Your task to perform on an android device: Go to location settings Image 0: 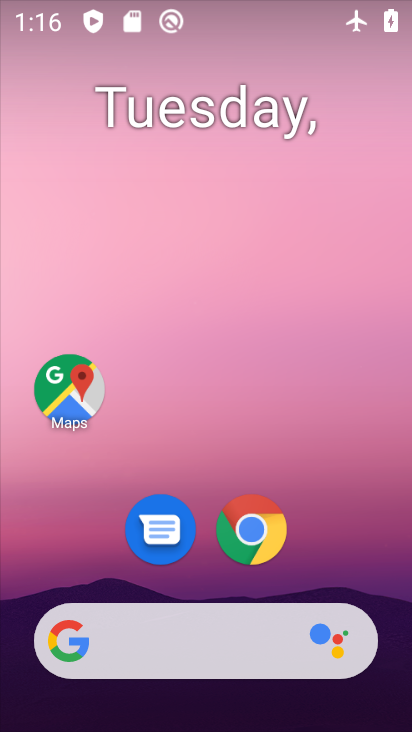
Step 0: drag from (371, 494) to (320, 172)
Your task to perform on an android device: Go to location settings Image 1: 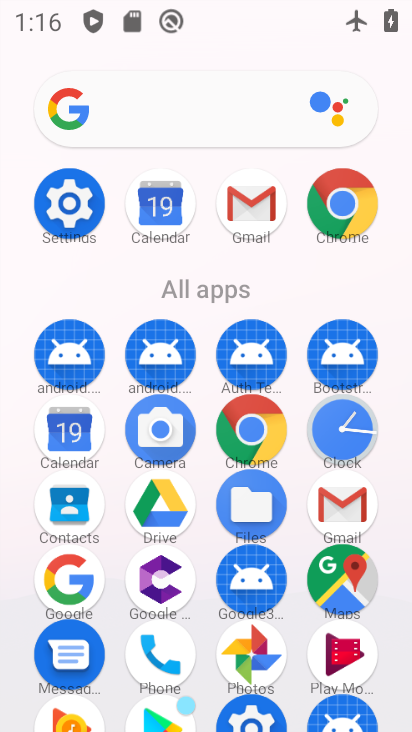
Step 1: click (73, 211)
Your task to perform on an android device: Go to location settings Image 2: 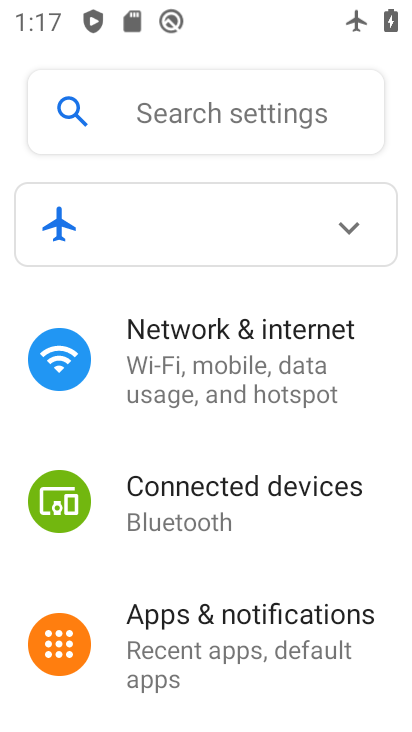
Step 2: drag from (137, 570) to (152, 166)
Your task to perform on an android device: Go to location settings Image 3: 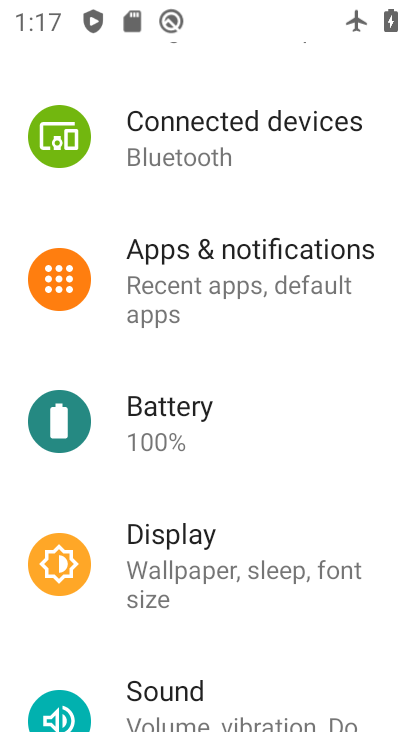
Step 3: drag from (302, 469) to (231, 145)
Your task to perform on an android device: Go to location settings Image 4: 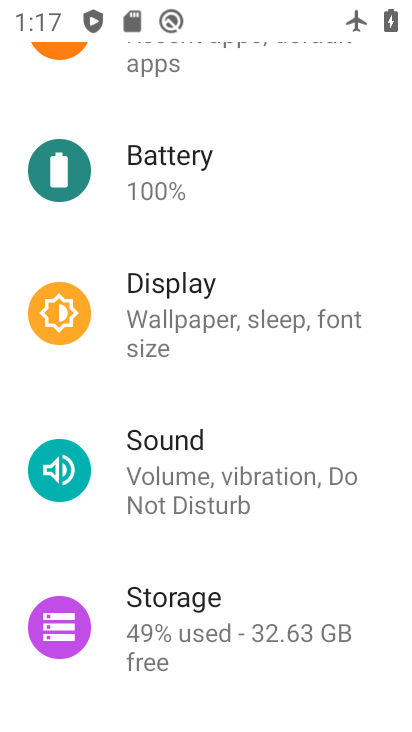
Step 4: drag from (278, 558) to (286, 126)
Your task to perform on an android device: Go to location settings Image 5: 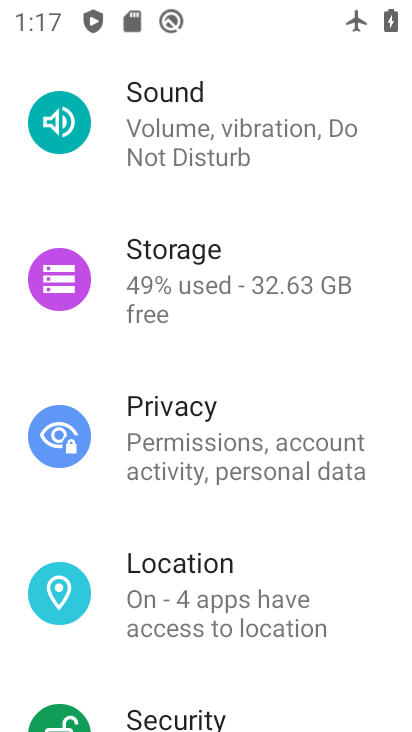
Step 5: click (308, 562)
Your task to perform on an android device: Go to location settings Image 6: 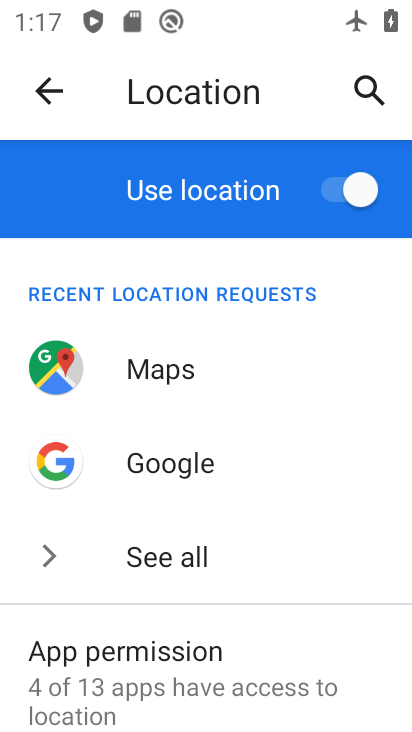
Step 6: task complete